Your task to perform on an android device: Go to Amazon Image 0: 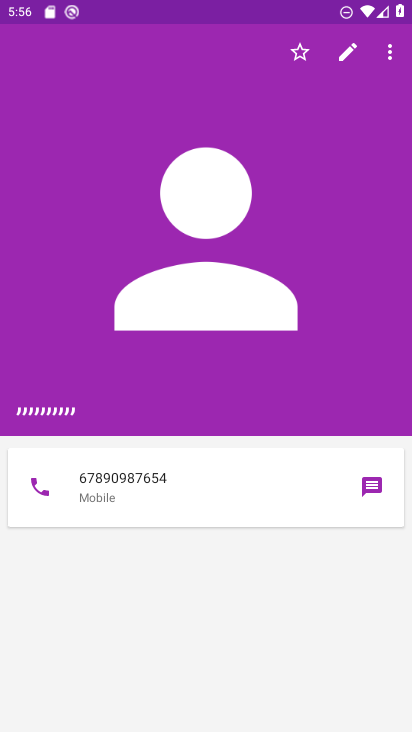
Step 0: drag from (204, 608) to (230, 29)
Your task to perform on an android device: Go to Amazon Image 1: 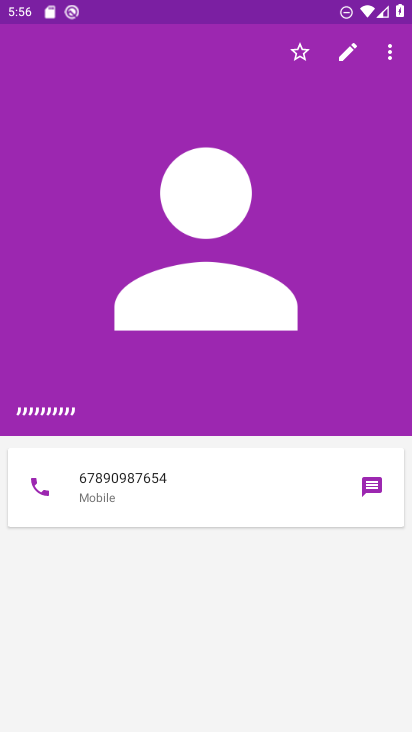
Step 1: press home button
Your task to perform on an android device: Go to Amazon Image 2: 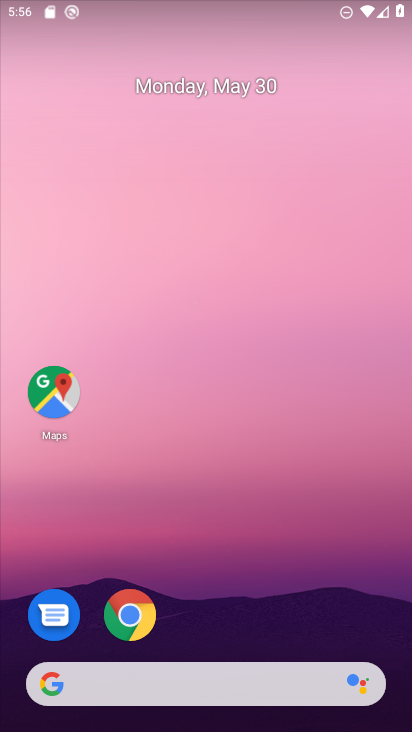
Step 2: click (133, 613)
Your task to perform on an android device: Go to Amazon Image 3: 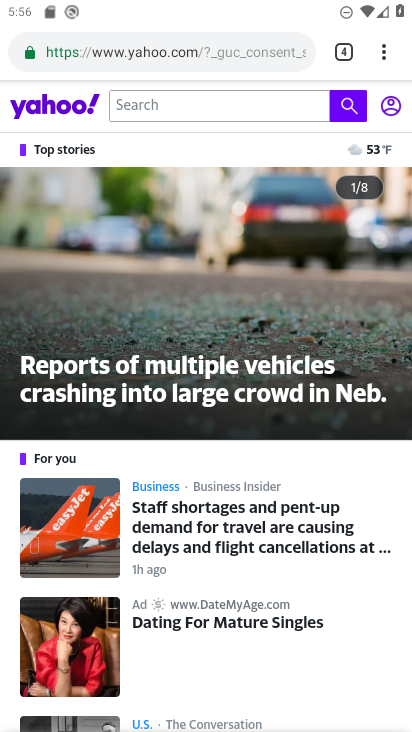
Step 3: click (345, 56)
Your task to perform on an android device: Go to Amazon Image 4: 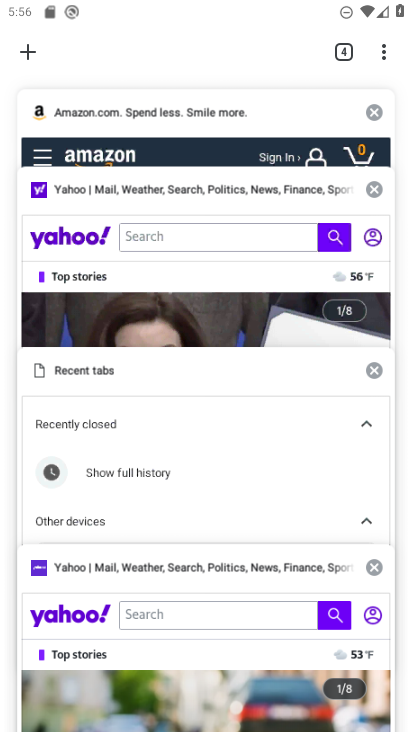
Step 4: click (102, 119)
Your task to perform on an android device: Go to Amazon Image 5: 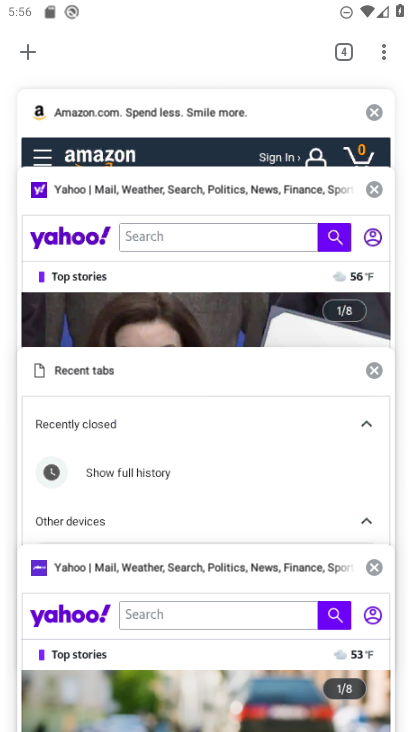
Step 5: click (102, 119)
Your task to perform on an android device: Go to Amazon Image 6: 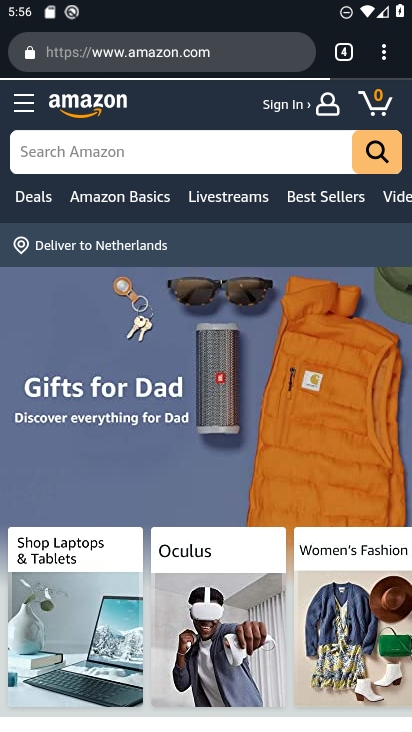
Step 6: task complete